Your task to perform on an android device: set the stopwatch Image 0: 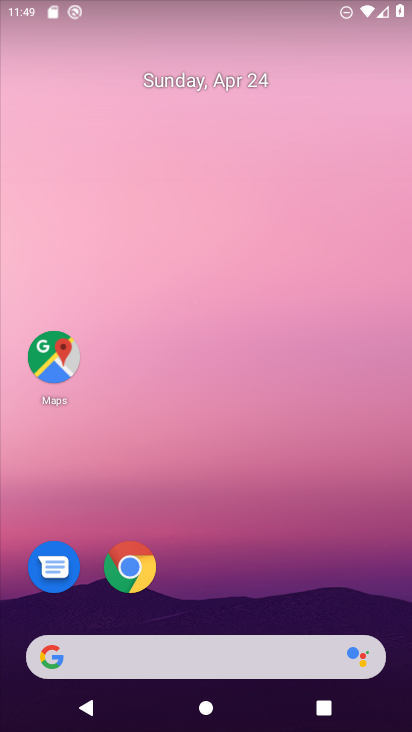
Step 0: drag from (259, 653) to (322, 75)
Your task to perform on an android device: set the stopwatch Image 1: 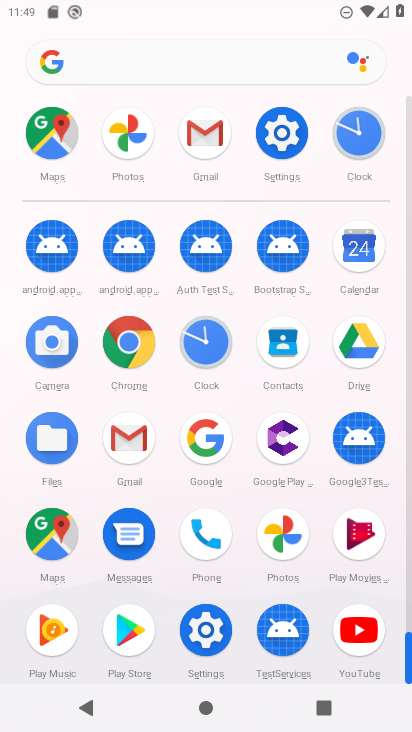
Step 1: click (217, 342)
Your task to perform on an android device: set the stopwatch Image 2: 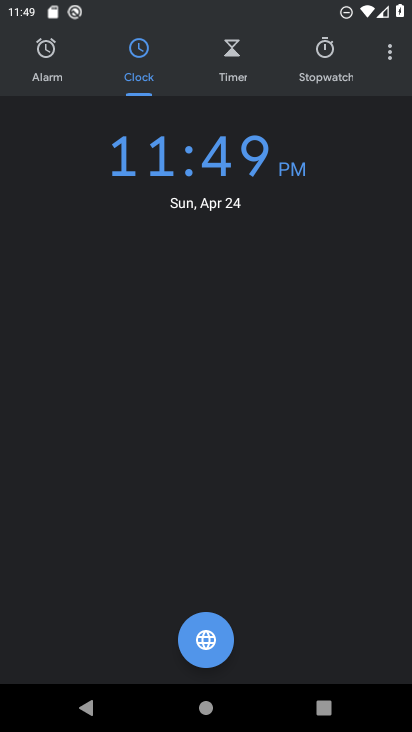
Step 2: click (309, 60)
Your task to perform on an android device: set the stopwatch Image 3: 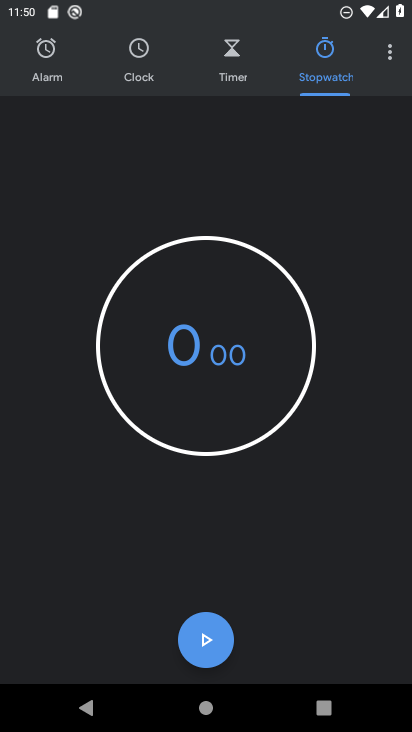
Step 3: click (197, 628)
Your task to perform on an android device: set the stopwatch Image 4: 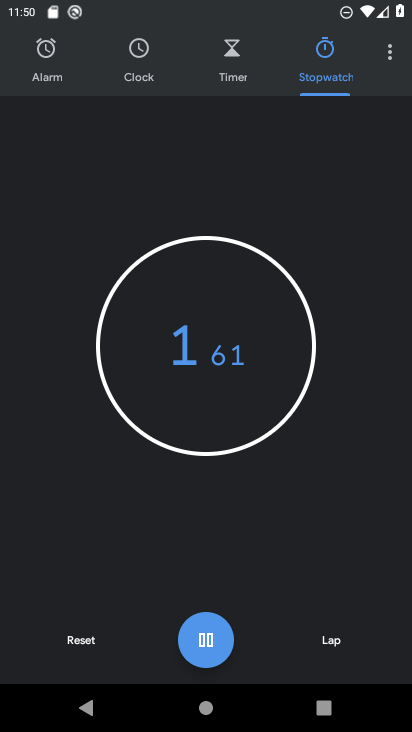
Step 4: task complete